Your task to perform on an android device: check the backup settings in the google photos Image 0: 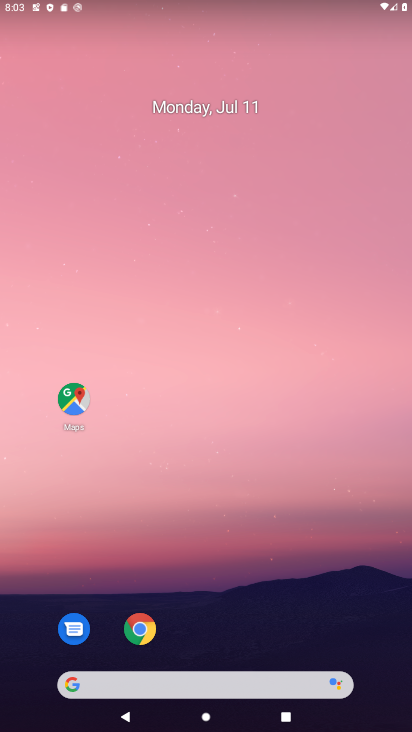
Step 0: drag from (242, 675) to (266, 176)
Your task to perform on an android device: check the backup settings in the google photos Image 1: 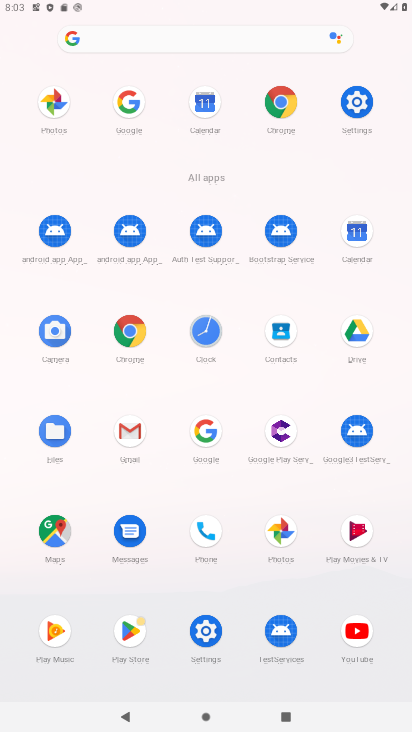
Step 1: click (281, 529)
Your task to perform on an android device: check the backup settings in the google photos Image 2: 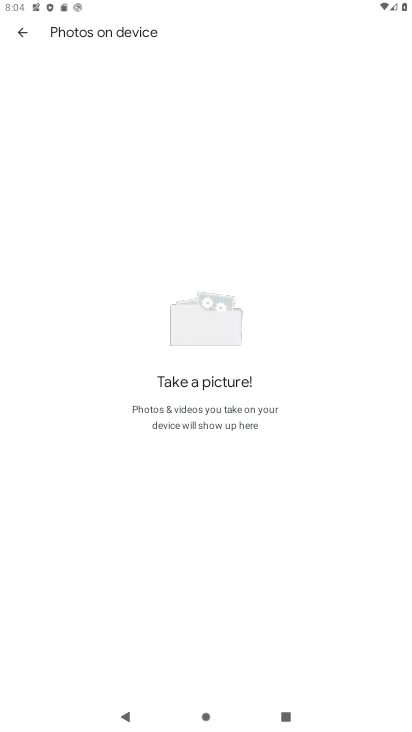
Step 2: press back button
Your task to perform on an android device: check the backup settings in the google photos Image 3: 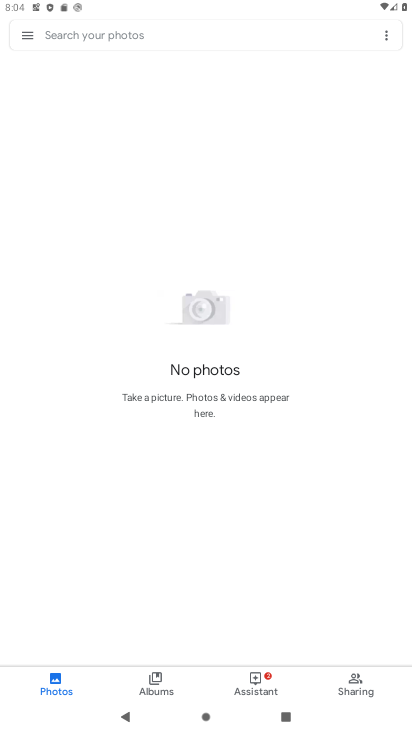
Step 3: click (26, 38)
Your task to perform on an android device: check the backup settings in the google photos Image 4: 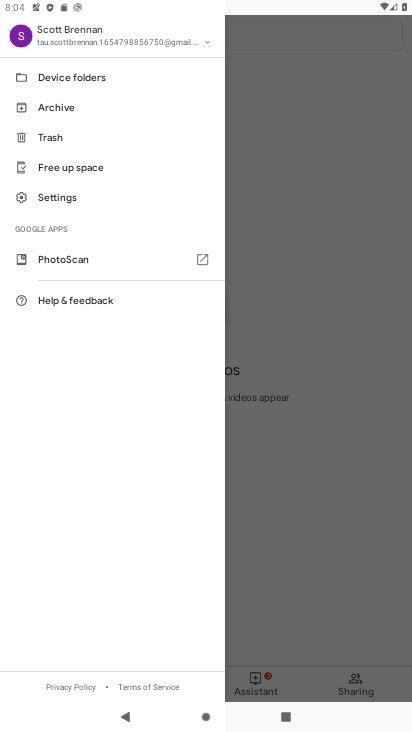
Step 4: click (62, 203)
Your task to perform on an android device: check the backup settings in the google photos Image 5: 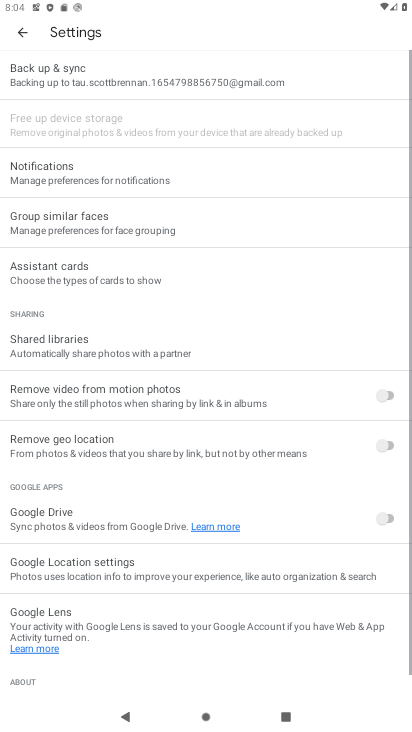
Step 5: click (94, 80)
Your task to perform on an android device: check the backup settings in the google photos Image 6: 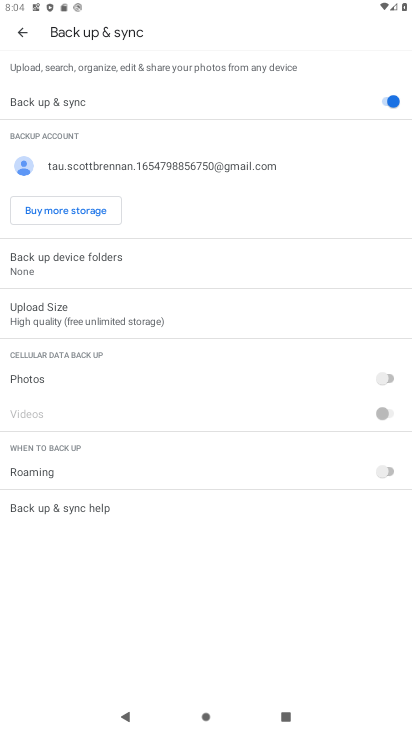
Step 6: task complete